Your task to perform on an android device: View the shopping cart on bestbuy. Search for razer blade on bestbuy, select the first entry, add it to the cart, then select checkout. Image 0: 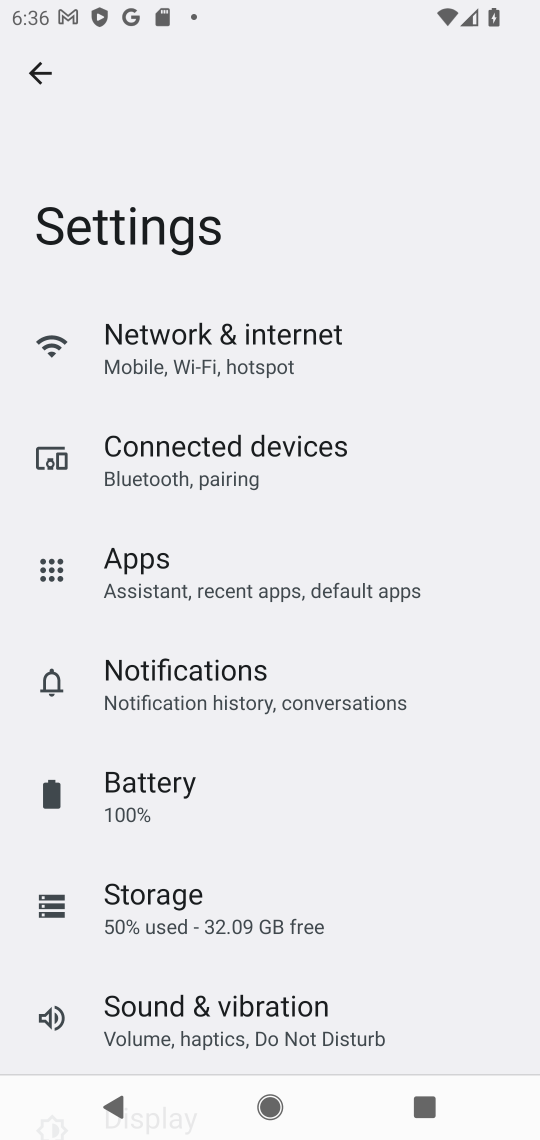
Step 0: press home button
Your task to perform on an android device: View the shopping cart on bestbuy. Search for razer blade on bestbuy, select the first entry, add it to the cart, then select checkout. Image 1: 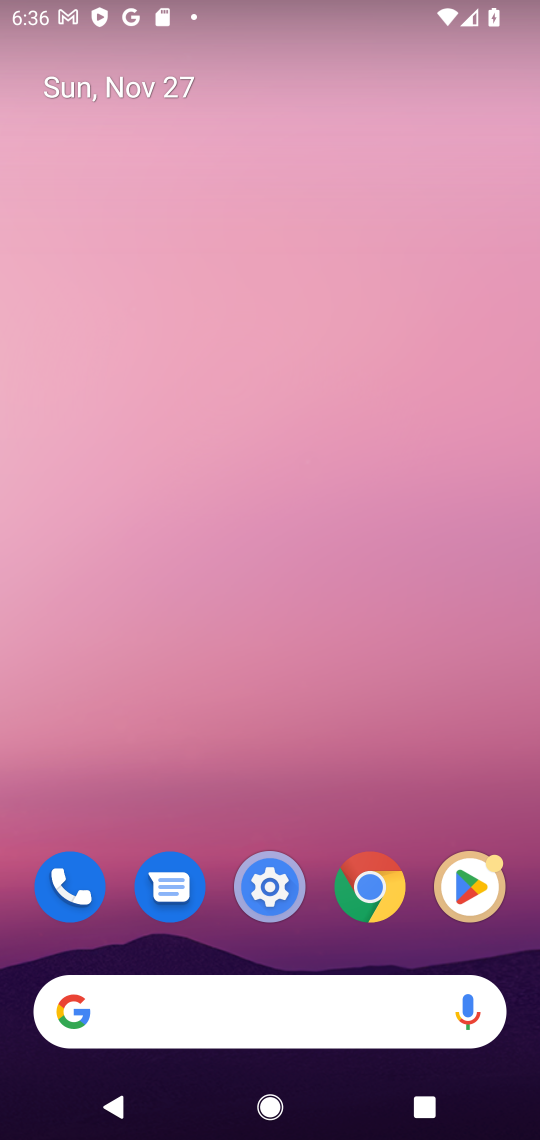
Step 1: click (243, 1007)
Your task to perform on an android device: View the shopping cart on bestbuy. Search for razer blade on bestbuy, select the first entry, add it to the cart, then select checkout. Image 2: 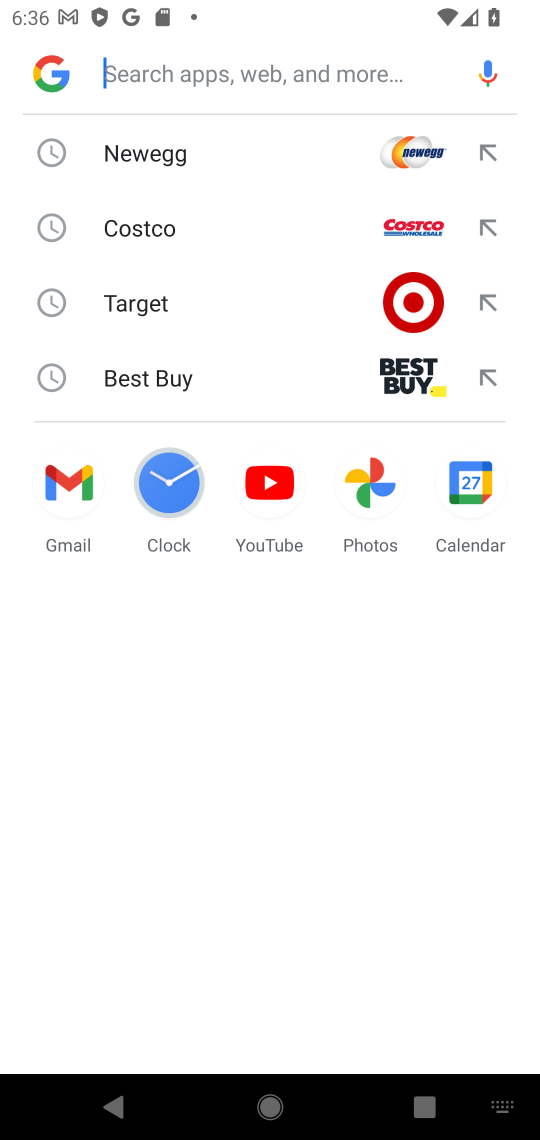
Step 2: click (215, 369)
Your task to perform on an android device: View the shopping cart on bestbuy. Search for razer blade on bestbuy, select the first entry, add it to the cart, then select checkout. Image 3: 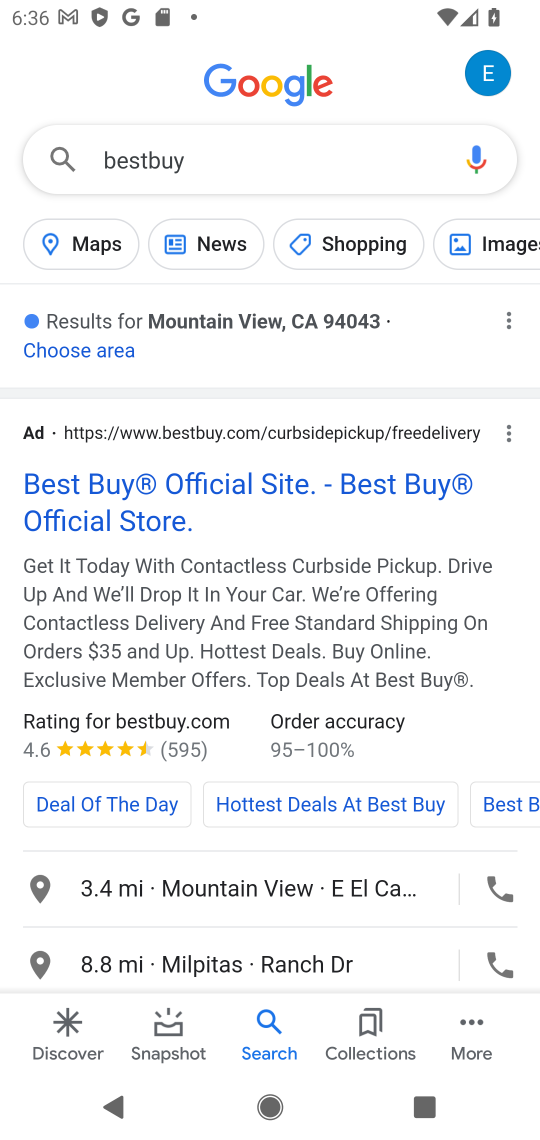
Step 3: click (195, 490)
Your task to perform on an android device: View the shopping cart on bestbuy. Search for razer blade on bestbuy, select the first entry, add it to the cart, then select checkout. Image 4: 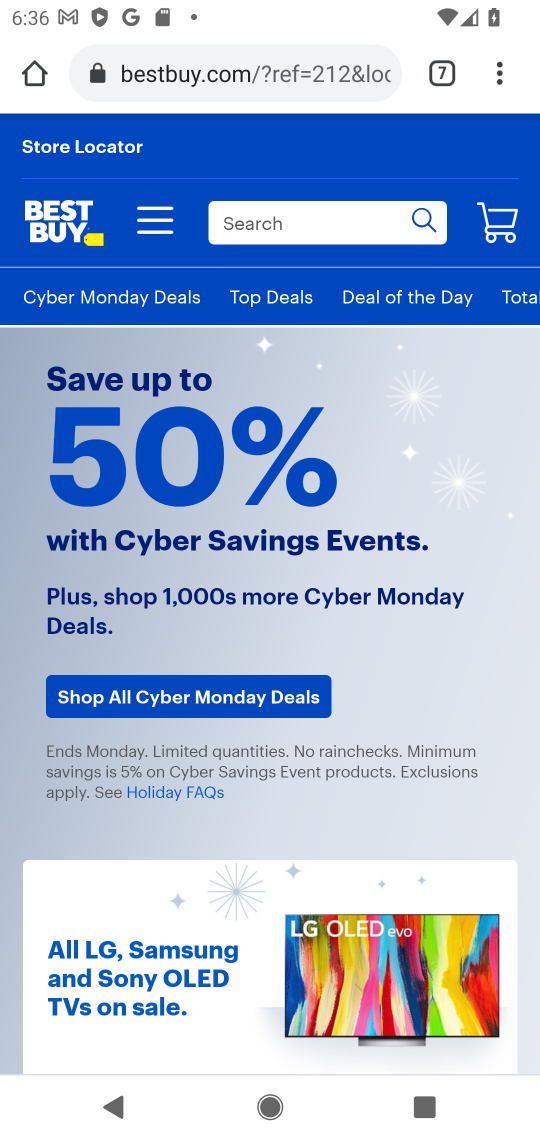
Step 4: click (237, 214)
Your task to perform on an android device: View the shopping cart on bestbuy. Search for razer blade on bestbuy, select the first entry, add it to the cart, then select checkout. Image 5: 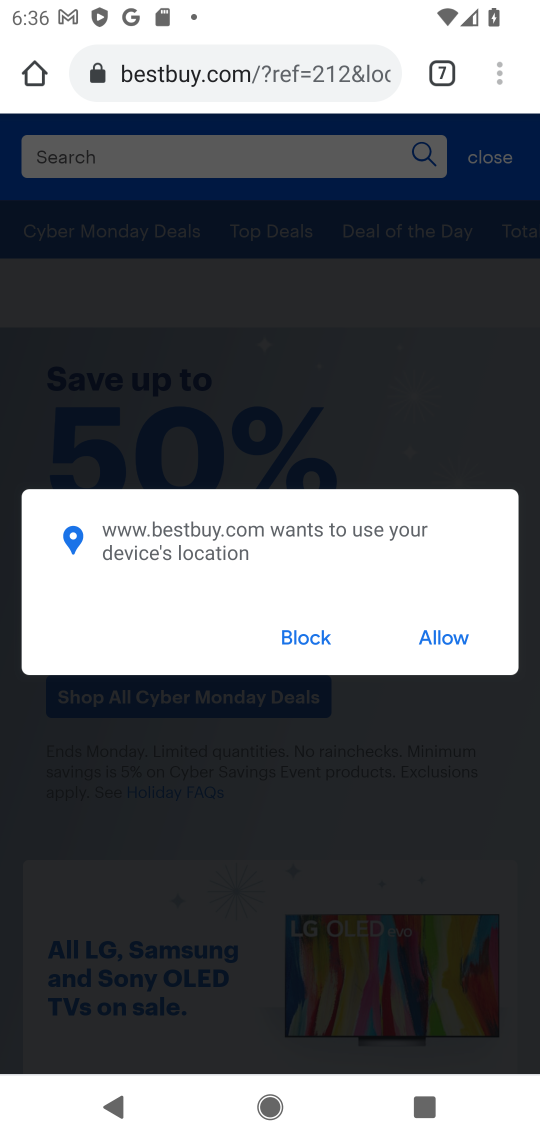
Step 5: click (310, 673)
Your task to perform on an android device: View the shopping cart on bestbuy. Search for razer blade on bestbuy, select the first entry, add it to the cart, then select checkout. Image 6: 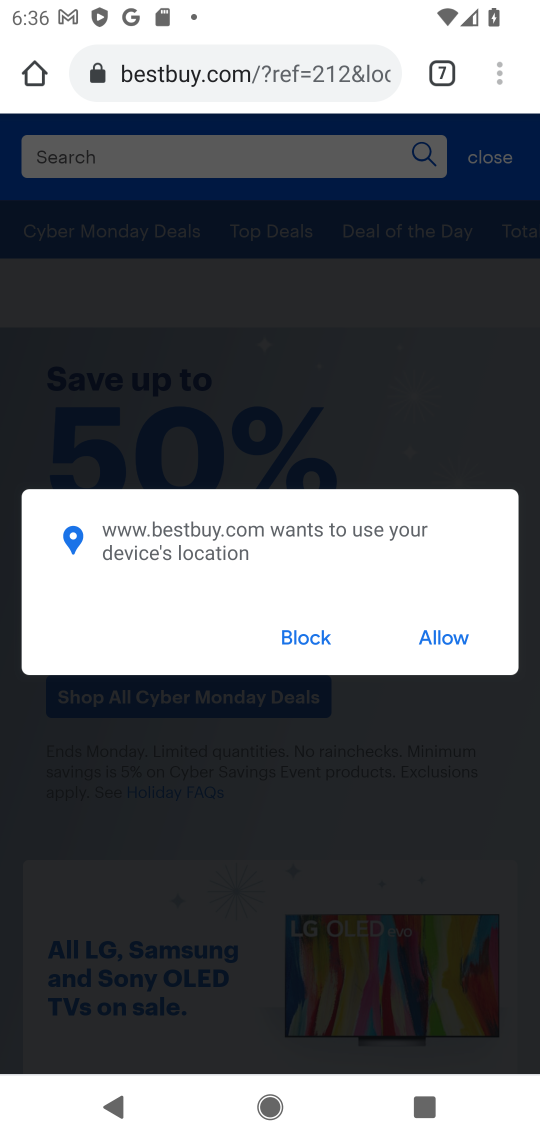
Step 6: click (310, 648)
Your task to perform on an android device: View the shopping cart on bestbuy. Search for razer blade on bestbuy, select the first entry, add it to the cart, then select checkout. Image 7: 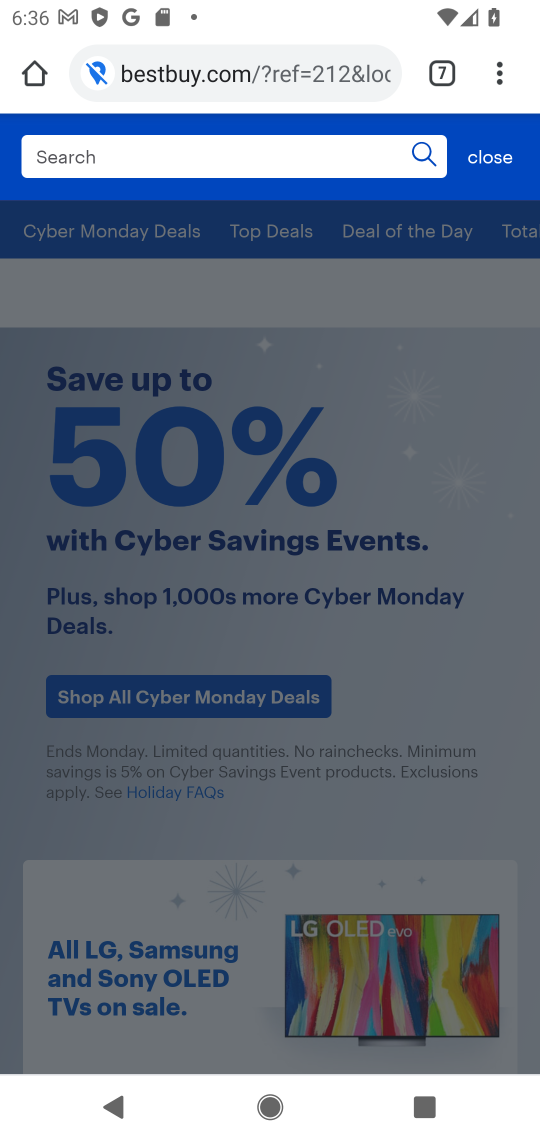
Step 7: click (192, 168)
Your task to perform on an android device: View the shopping cart on bestbuy. Search for razer blade on bestbuy, select the first entry, add it to the cart, then select checkout. Image 8: 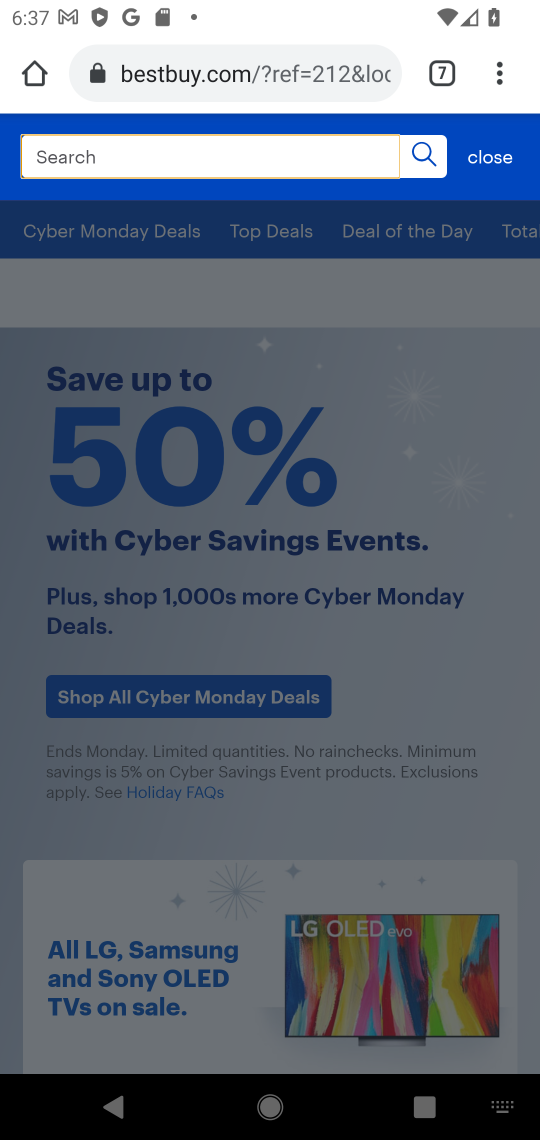
Step 8: type "razer blade"
Your task to perform on an android device: View the shopping cart on bestbuy. Search for razer blade on bestbuy, select the first entry, add it to the cart, then select checkout. Image 9: 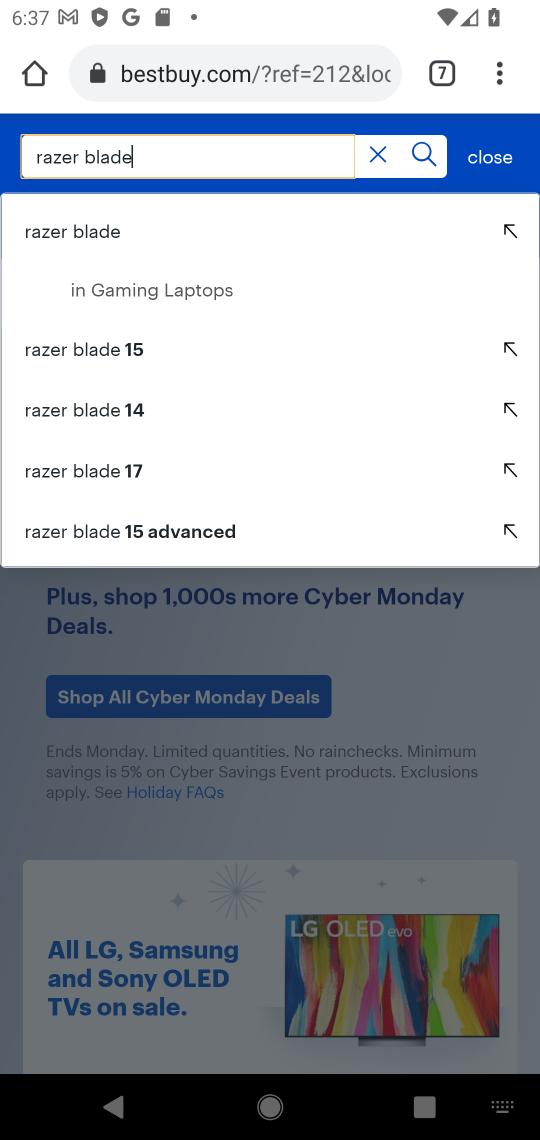
Step 9: click (186, 242)
Your task to perform on an android device: View the shopping cart on bestbuy. Search for razer blade on bestbuy, select the first entry, add it to the cart, then select checkout. Image 10: 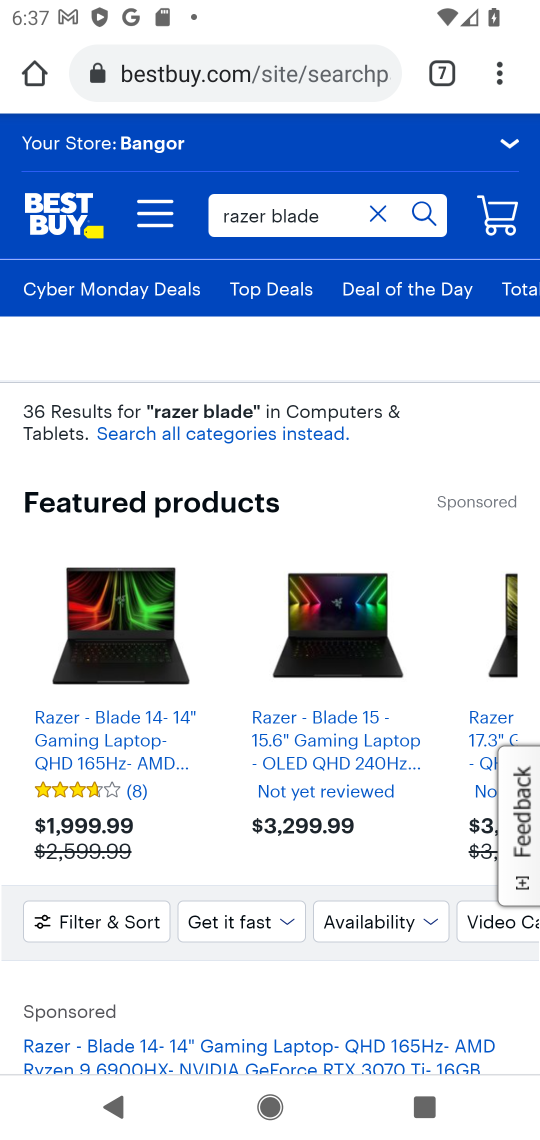
Step 10: click (131, 732)
Your task to perform on an android device: View the shopping cart on bestbuy. Search for razer blade on bestbuy, select the first entry, add it to the cart, then select checkout. Image 11: 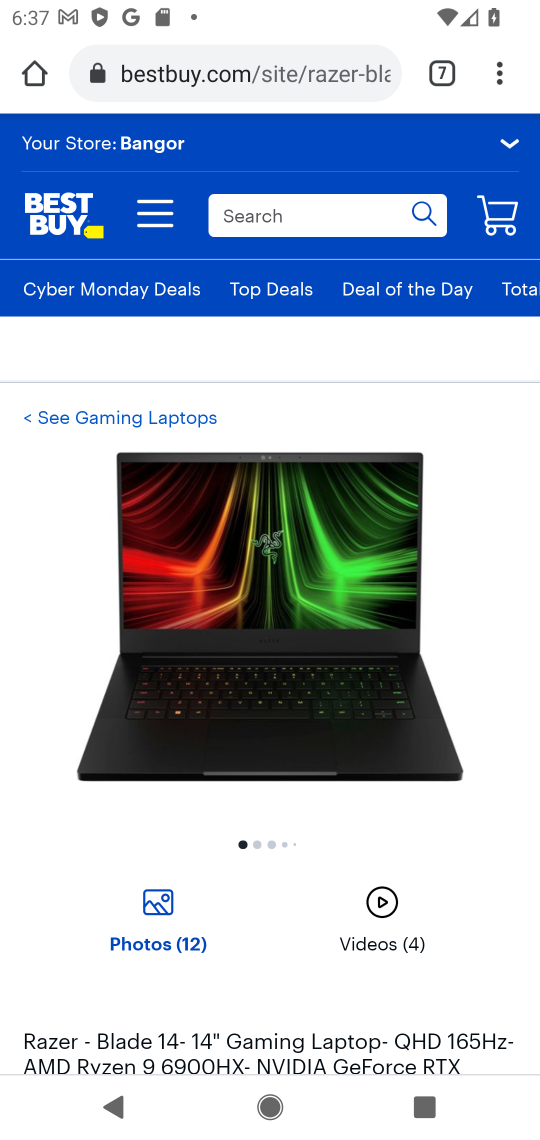
Step 11: drag from (276, 976) to (279, 523)
Your task to perform on an android device: View the shopping cart on bestbuy. Search for razer blade on bestbuy, select the first entry, add it to the cart, then select checkout. Image 12: 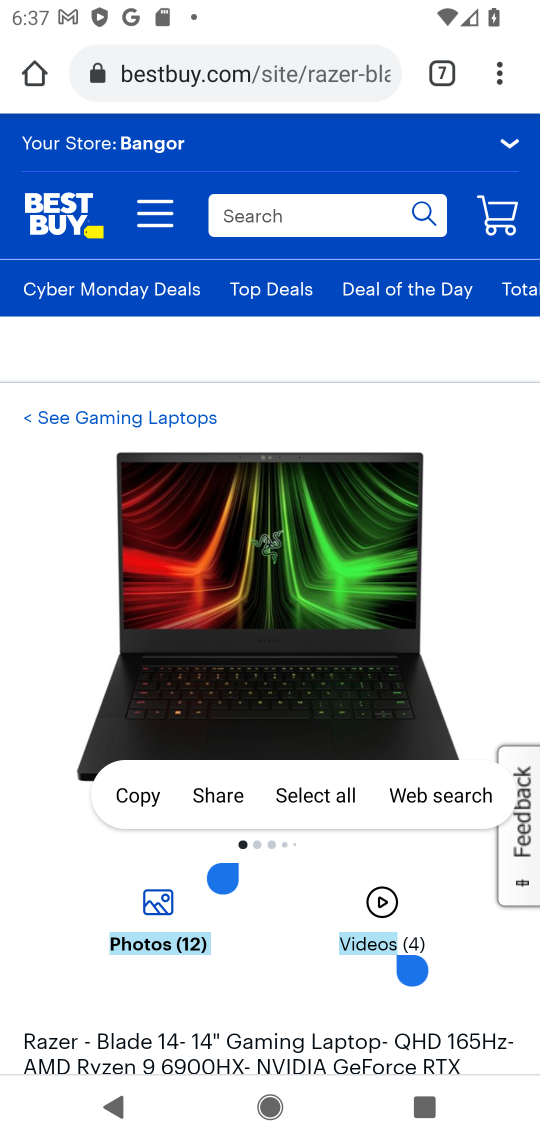
Step 12: click (231, 1010)
Your task to perform on an android device: View the shopping cart on bestbuy. Search for razer blade on bestbuy, select the first entry, add it to the cart, then select checkout. Image 13: 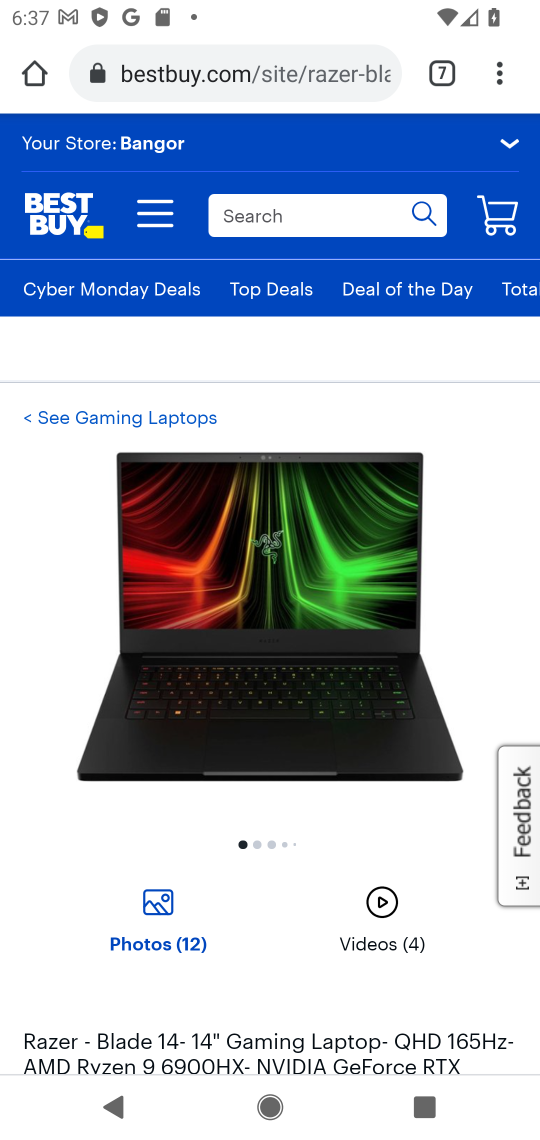
Step 13: drag from (231, 1010) to (288, 477)
Your task to perform on an android device: View the shopping cart on bestbuy. Search for razer blade on bestbuy, select the first entry, add it to the cart, then select checkout. Image 14: 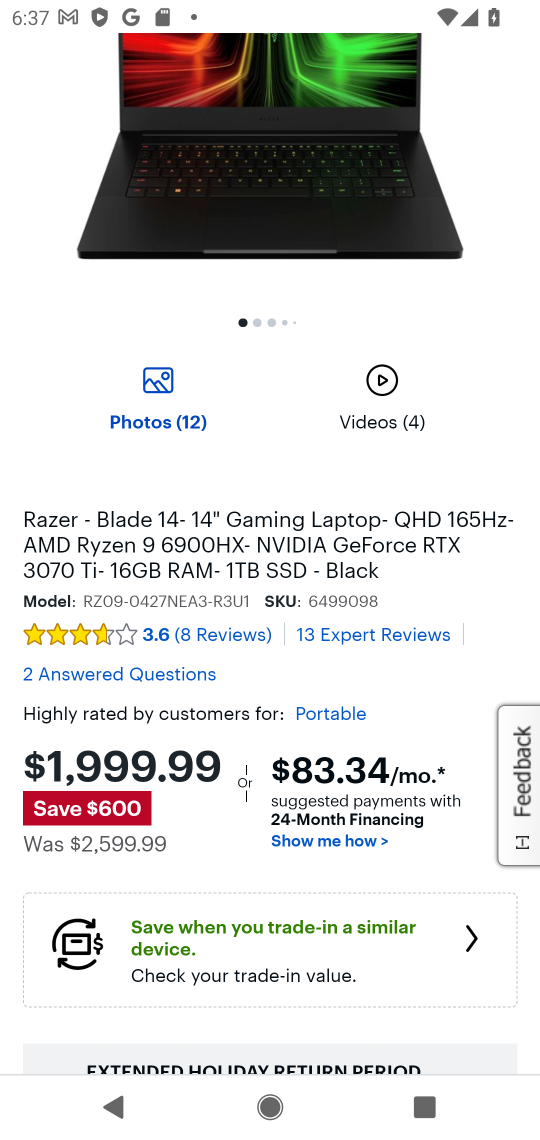
Step 14: drag from (377, 796) to (374, 468)
Your task to perform on an android device: View the shopping cart on bestbuy. Search for razer blade on bestbuy, select the first entry, add it to the cart, then select checkout. Image 15: 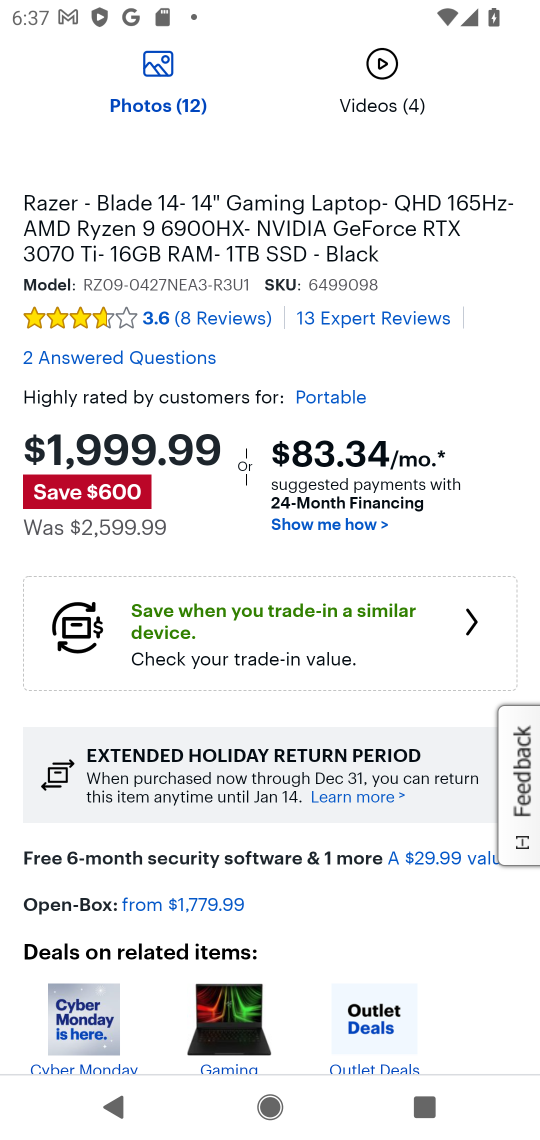
Step 15: drag from (416, 926) to (398, 189)
Your task to perform on an android device: View the shopping cart on bestbuy. Search for razer blade on bestbuy, select the first entry, add it to the cart, then select checkout. Image 16: 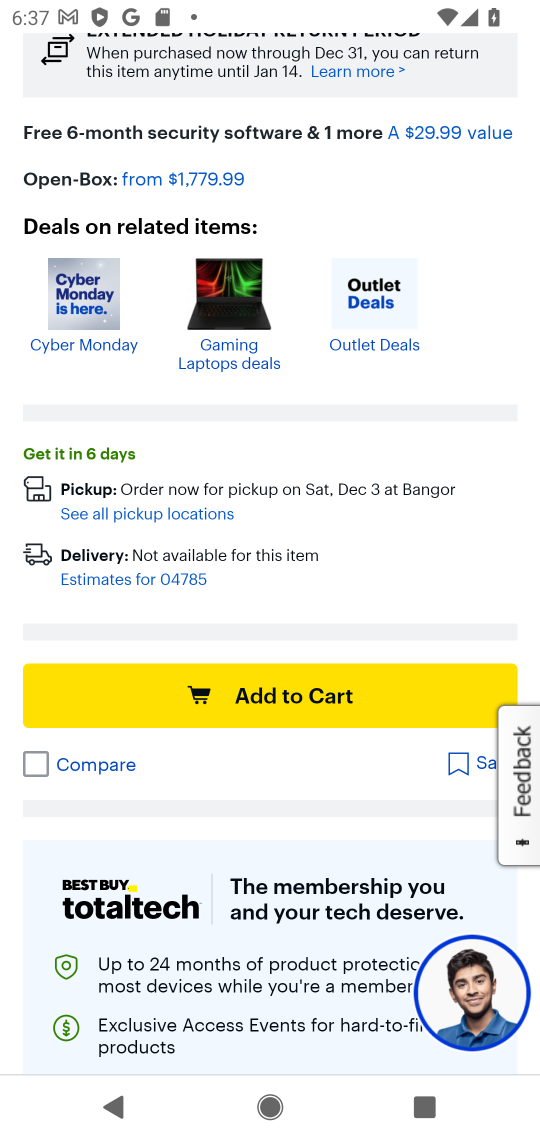
Step 16: click (329, 709)
Your task to perform on an android device: View the shopping cart on bestbuy. Search for razer blade on bestbuy, select the first entry, add it to the cart, then select checkout. Image 17: 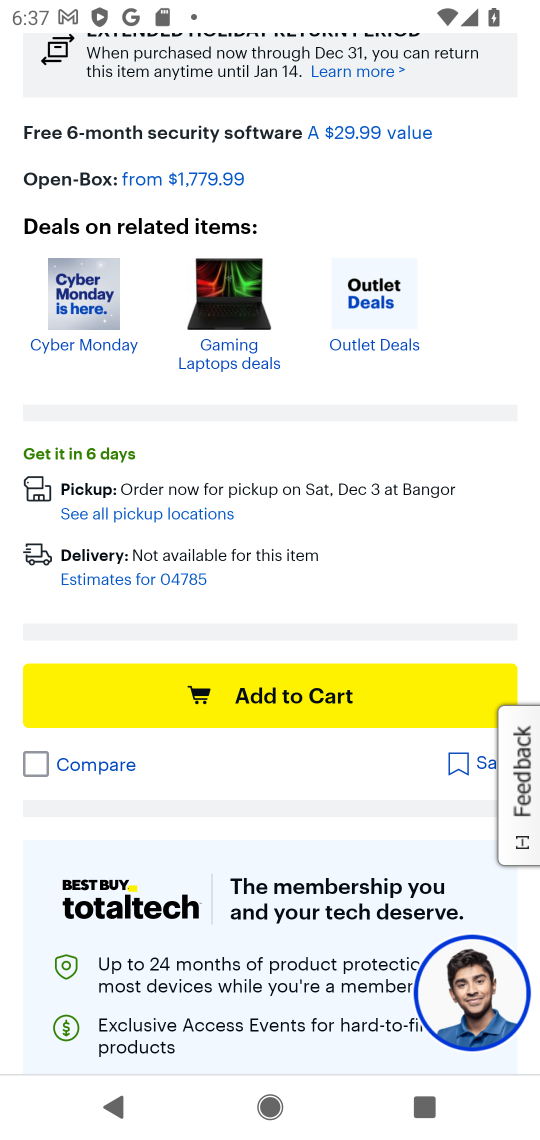
Step 17: task complete